Your task to perform on an android device: Search for flights from Buenos aires to Helsinki Image 0: 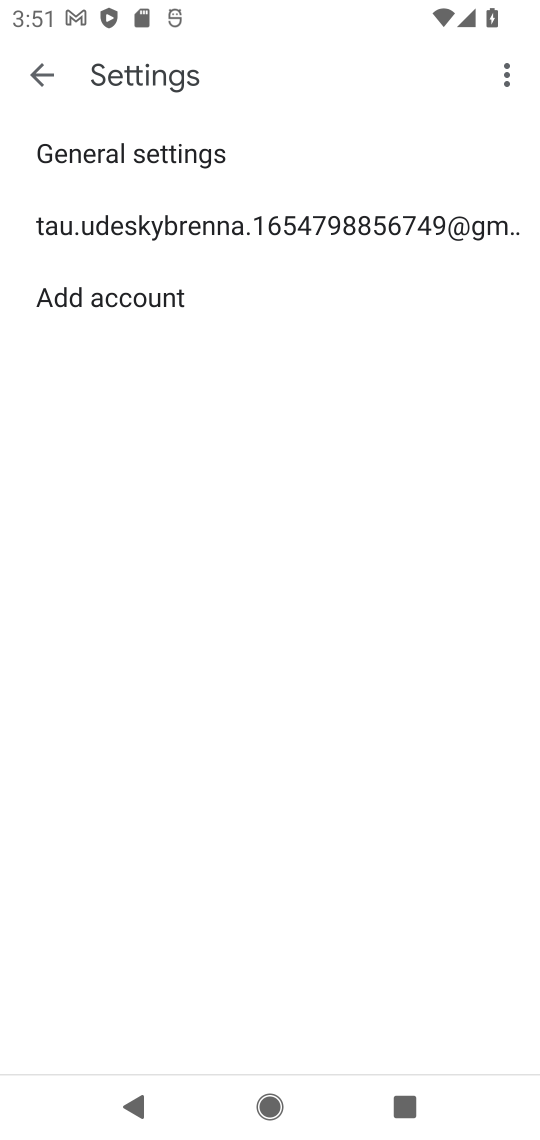
Step 0: press home button
Your task to perform on an android device: Search for flights from Buenos aires to Helsinki Image 1: 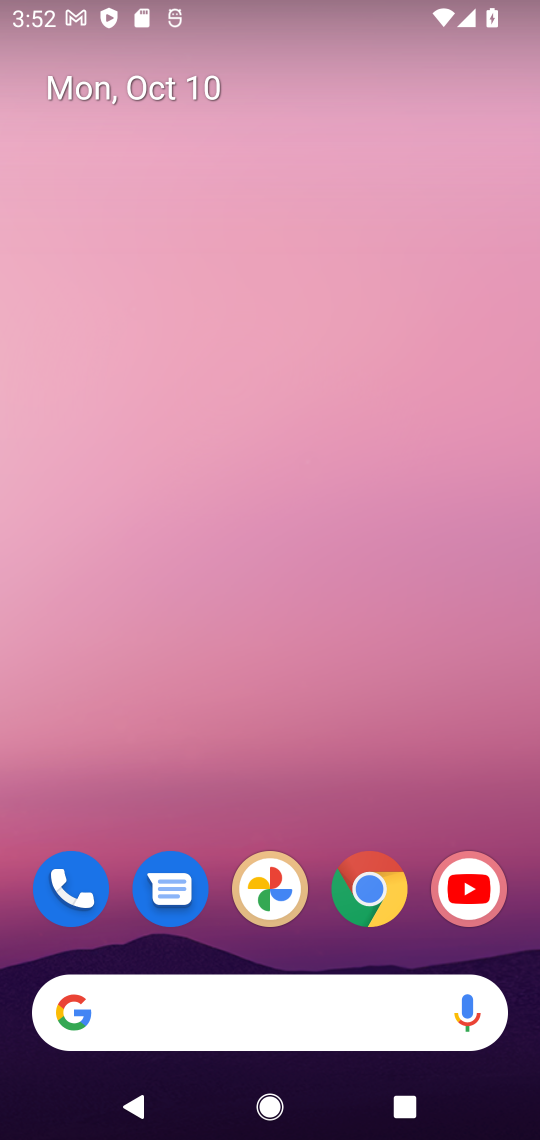
Step 1: click (372, 886)
Your task to perform on an android device: Search for flights from Buenos aires to Helsinki Image 2: 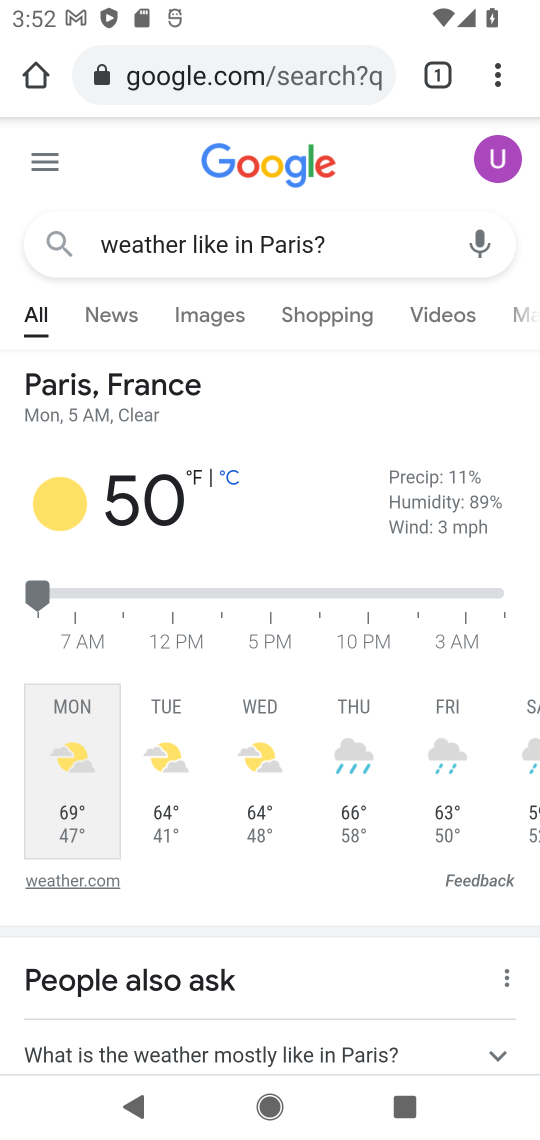
Step 2: click (286, 46)
Your task to perform on an android device: Search for flights from Buenos aires to Helsinki Image 3: 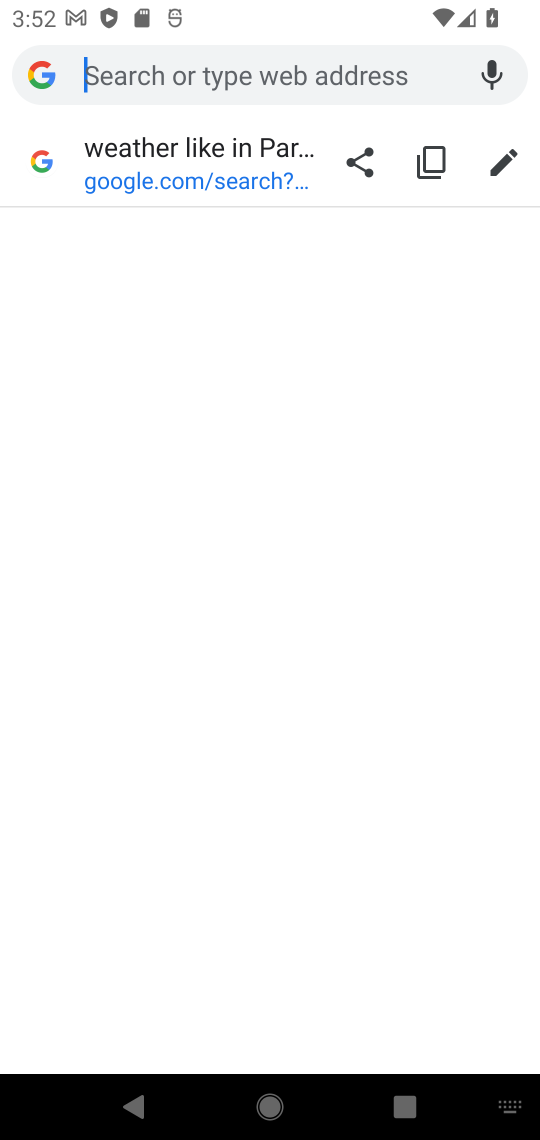
Step 3: type " flights from Buenos aires to Helsinki"
Your task to perform on an android device: Search for flights from Buenos aires to Helsinki Image 4: 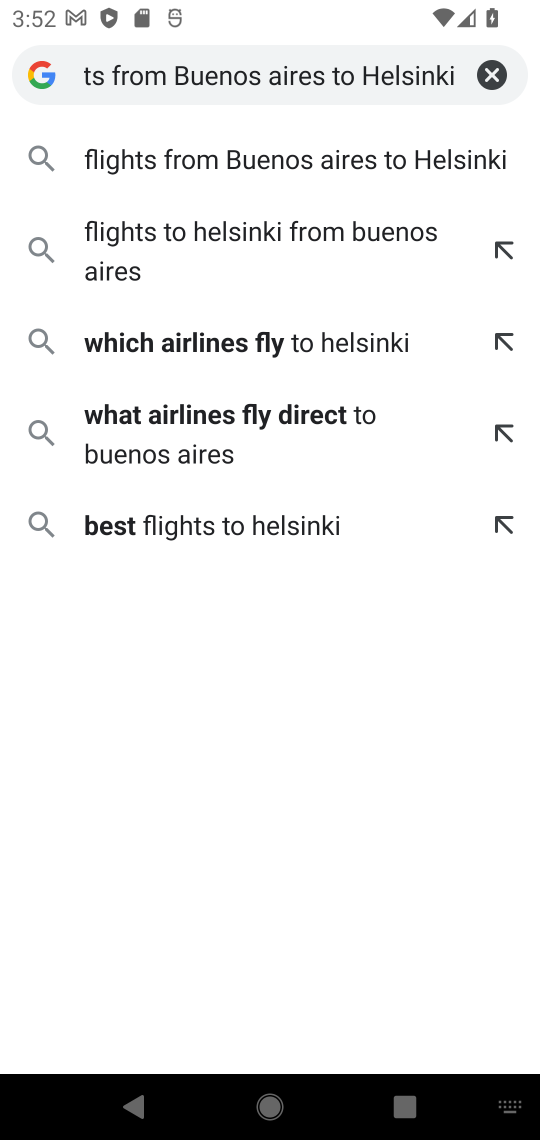
Step 4: click (179, 159)
Your task to perform on an android device: Search for flights from Buenos aires to Helsinki Image 5: 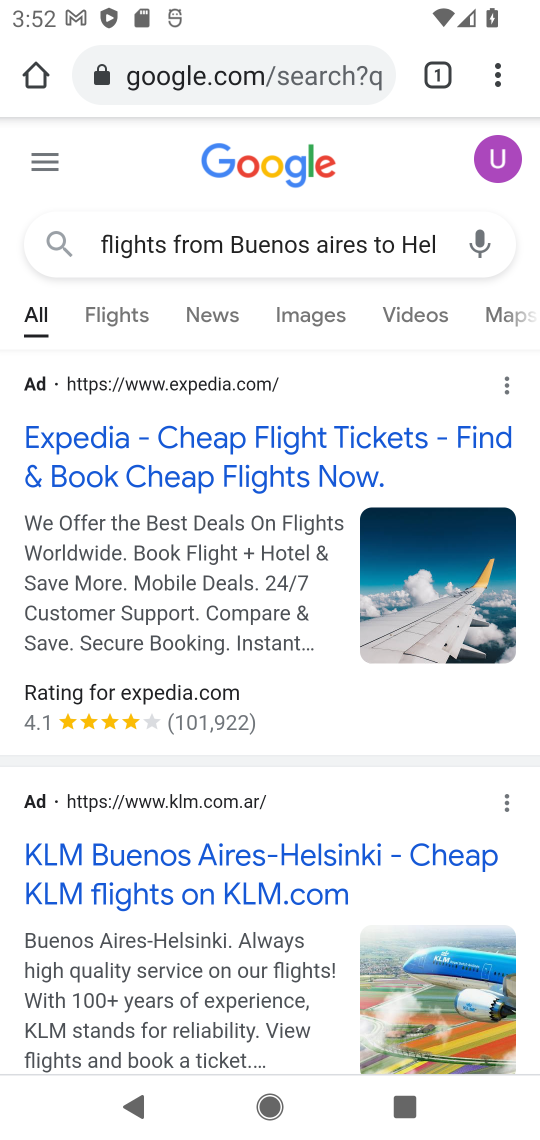
Step 5: click (179, 450)
Your task to perform on an android device: Search for flights from Buenos aires to Helsinki Image 6: 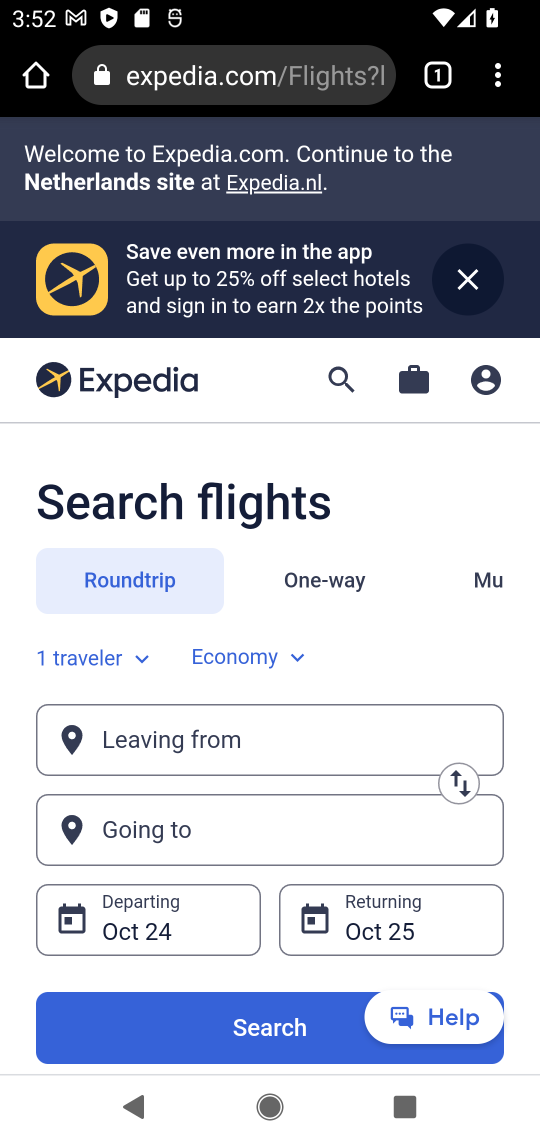
Step 6: click (179, 733)
Your task to perform on an android device: Search for flights from Buenos aires to Helsinki Image 7: 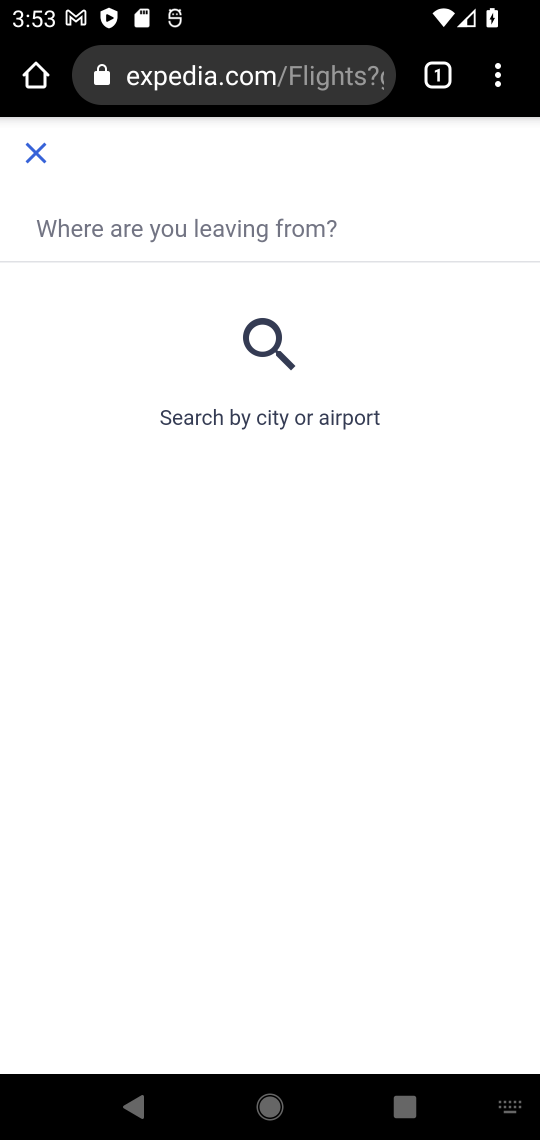
Step 7: type "Buenos aires"
Your task to perform on an android device: Search for flights from Buenos aires to Helsinki Image 8: 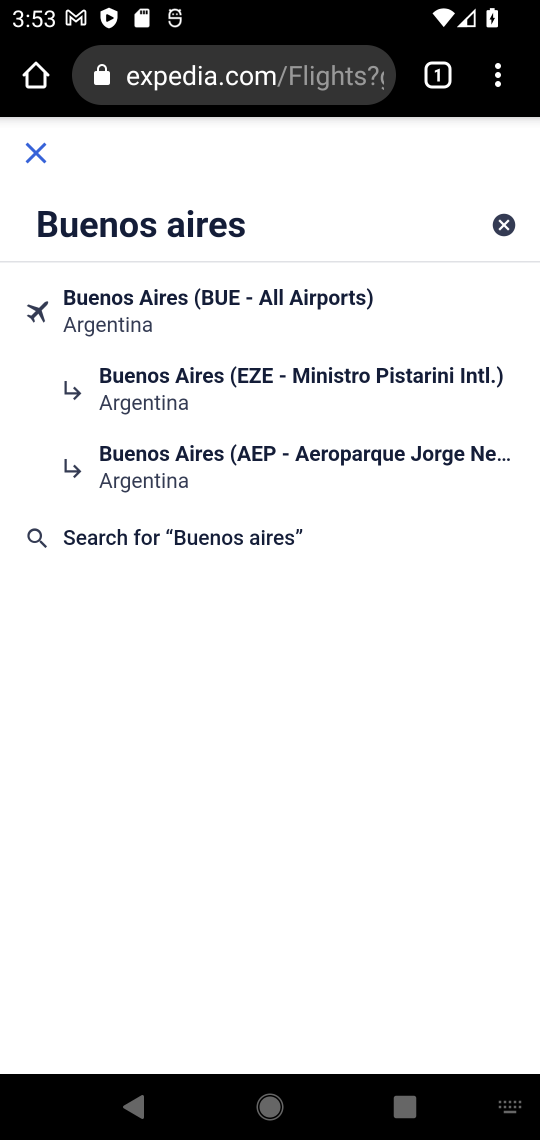
Step 8: click (139, 313)
Your task to perform on an android device: Search for flights from Buenos aires to Helsinki Image 9: 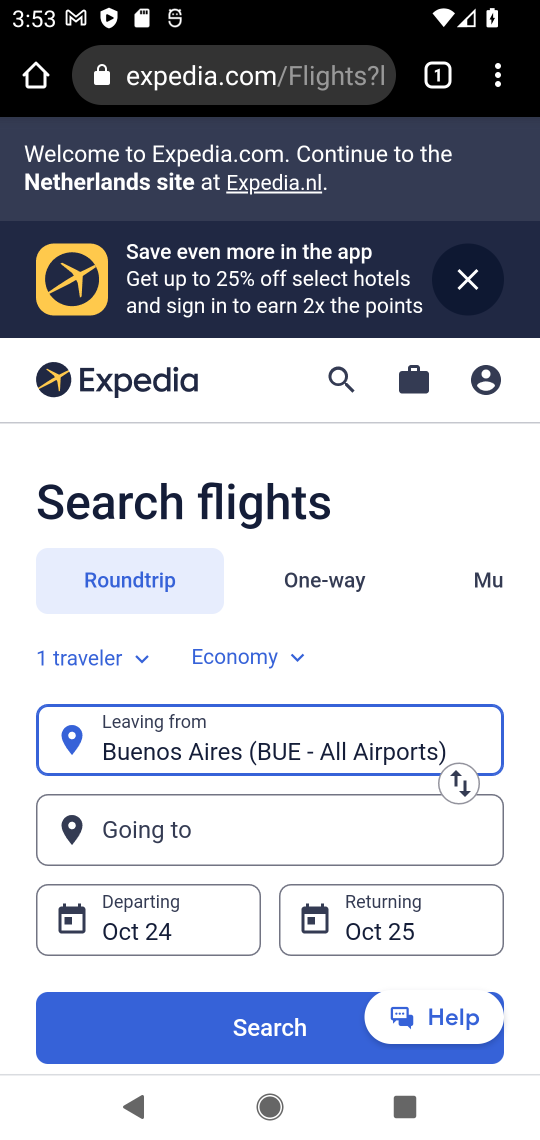
Step 9: click (143, 825)
Your task to perform on an android device: Search for flights from Buenos aires to Helsinki Image 10: 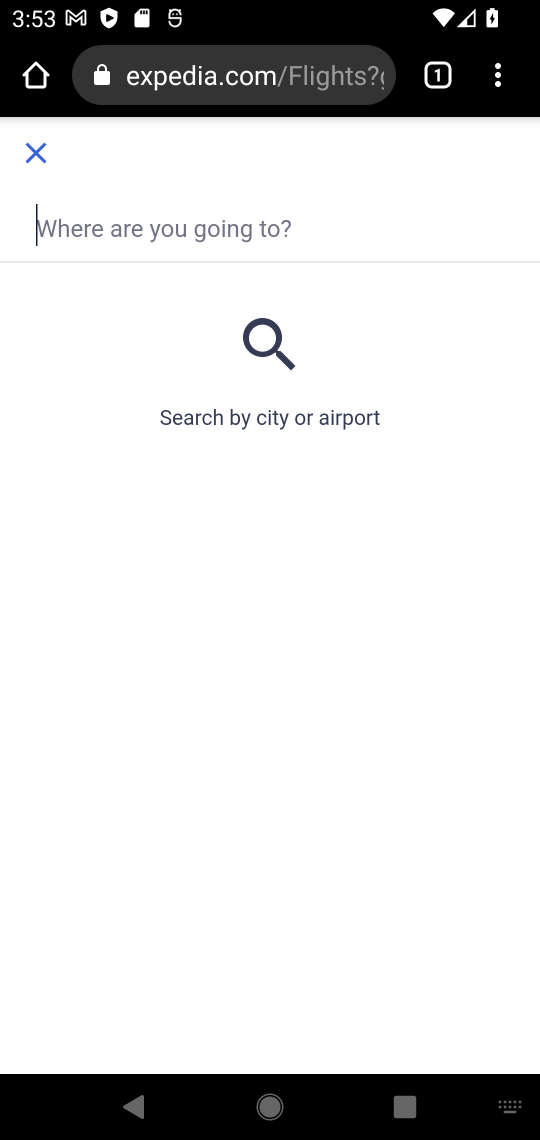
Step 10: type "Helsinki"
Your task to perform on an android device: Search for flights from Buenos aires to Helsinki Image 11: 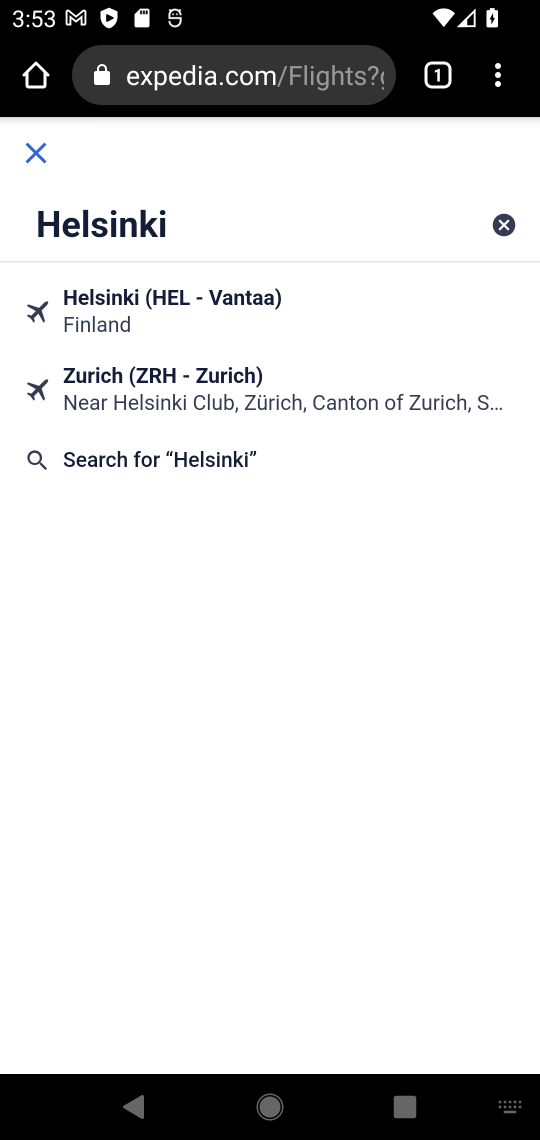
Step 11: click (105, 295)
Your task to perform on an android device: Search for flights from Buenos aires to Helsinki Image 12: 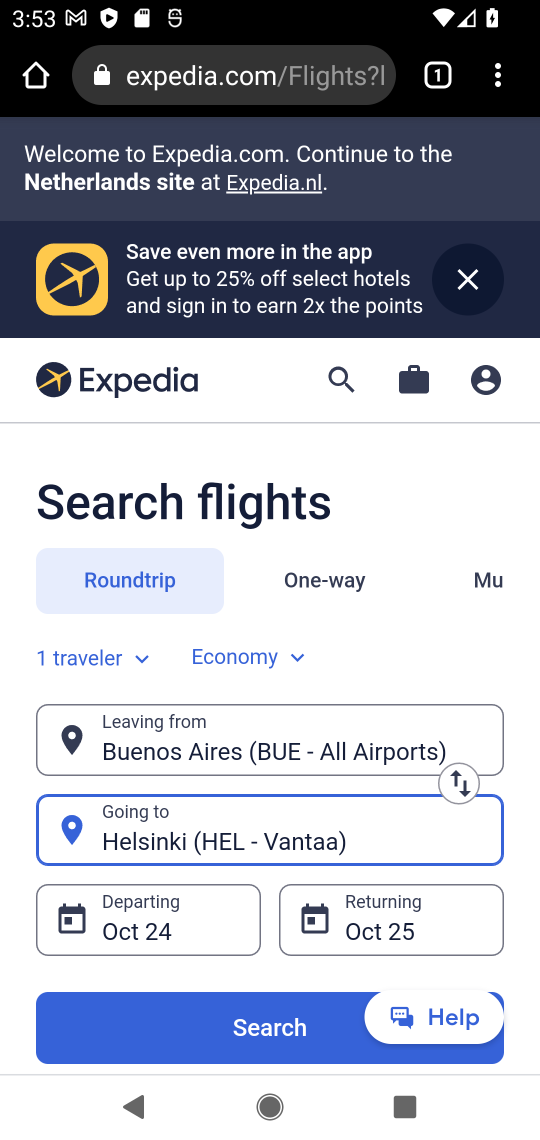
Step 12: click (259, 1034)
Your task to perform on an android device: Search for flights from Buenos aires to Helsinki Image 13: 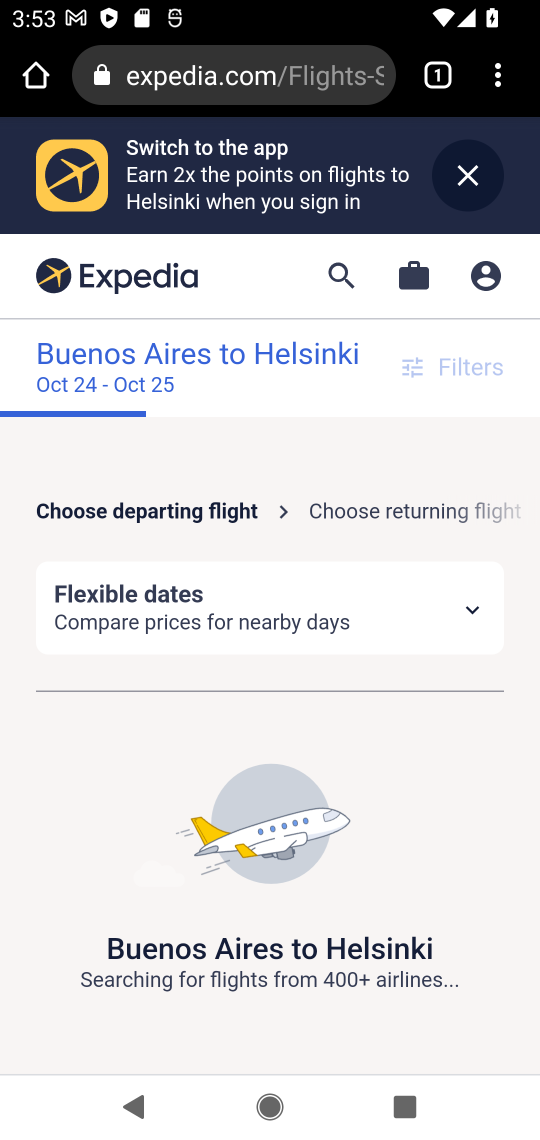
Step 13: click (449, 901)
Your task to perform on an android device: Search for flights from Buenos aires to Helsinki Image 14: 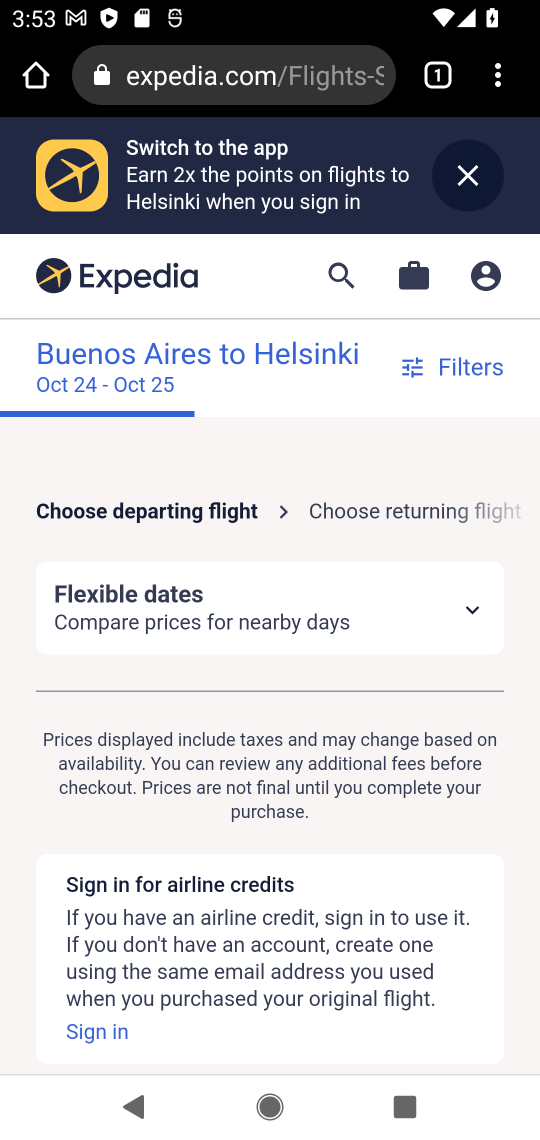
Step 14: task complete